Your task to perform on an android device: uninstall "ColorNote Notepad Notes" Image 0: 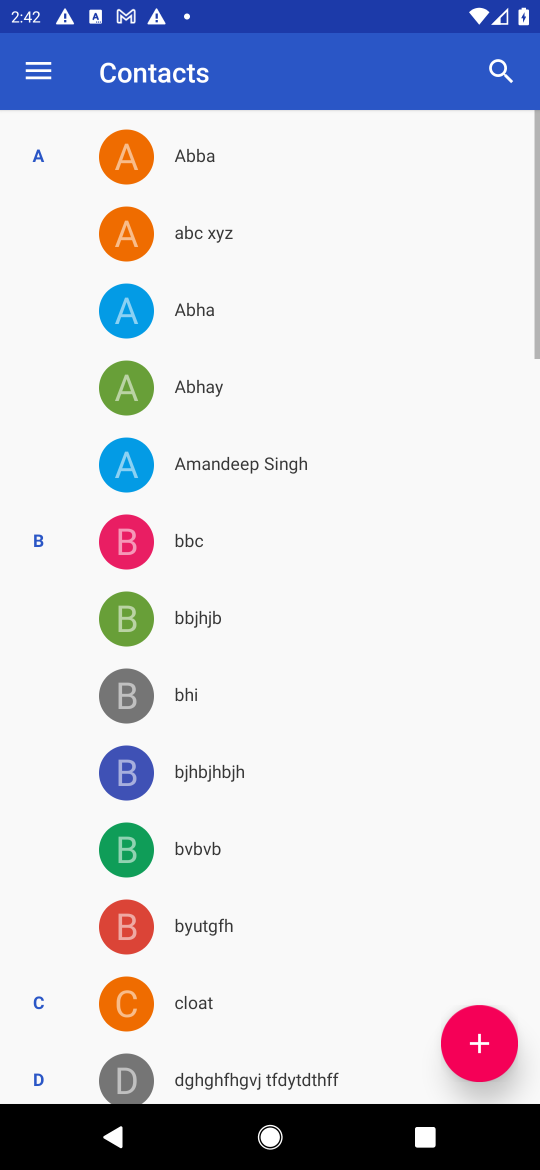
Step 0: press home button
Your task to perform on an android device: uninstall "ColorNote Notepad Notes" Image 1: 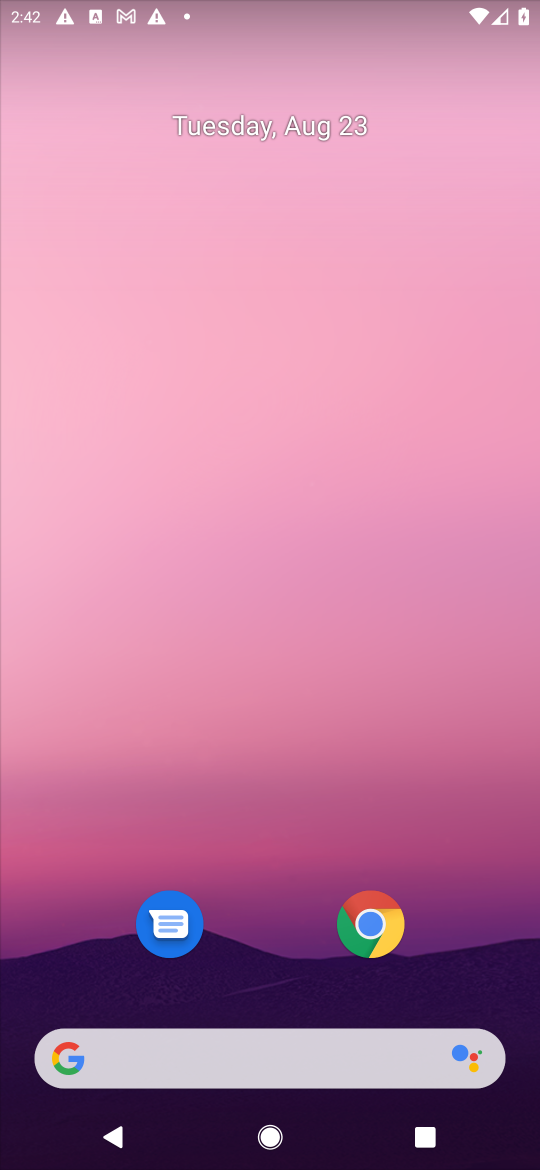
Step 1: drag from (490, 924) to (431, 201)
Your task to perform on an android device: uninstall "ColorNote Notepad Notes" Image 2: 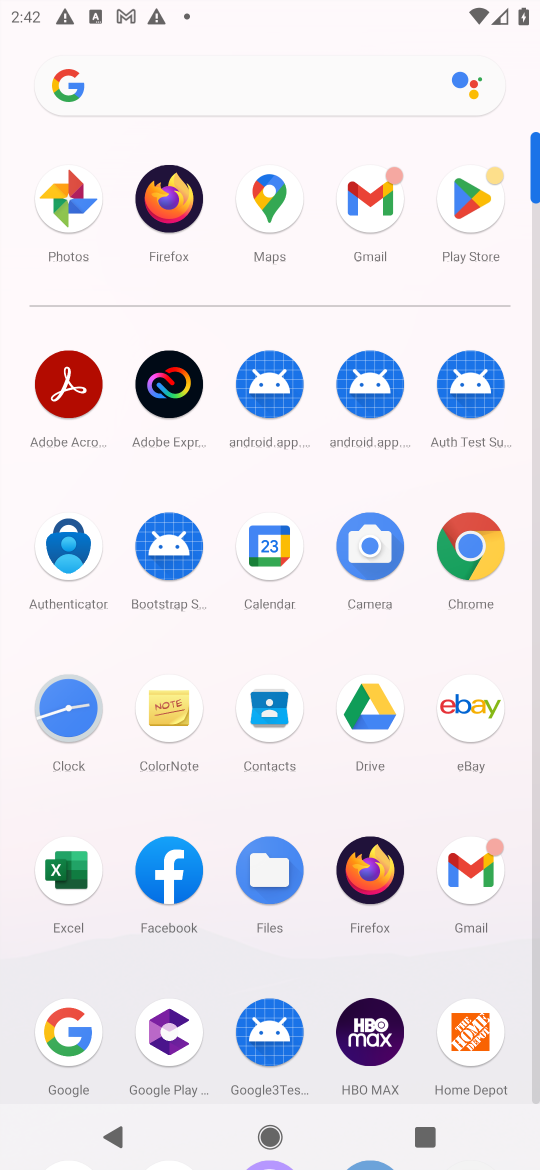
Step 2: click (464, 195)
Your task to perform on an android device: uninstall "ColorNote Notepad Notes" Image 3: 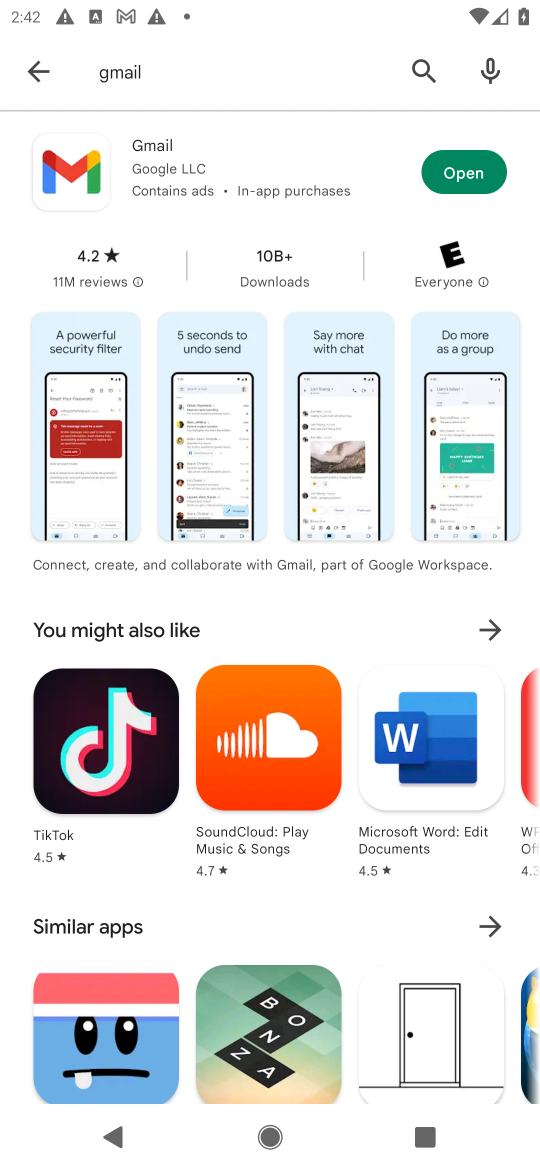
Step 3: press back button
Your task to perform on an android device: uninstall "ColorNote Notepad Notes" Image 4: 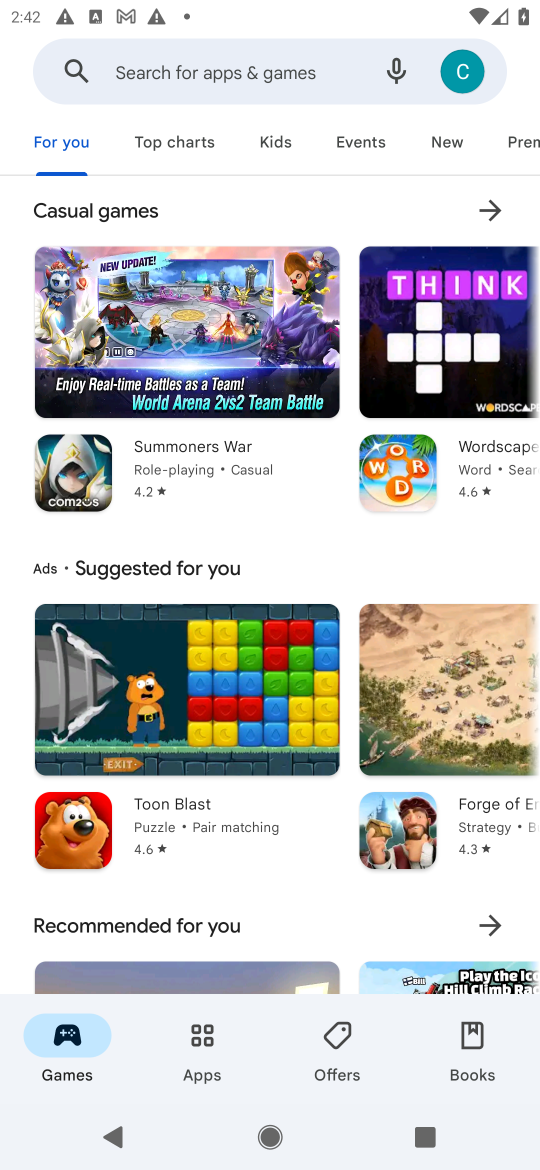
Step 4: click (266, 69)
Your task to perform on an android device: uninstall "ColorNote Notepad Notes" Image 5: 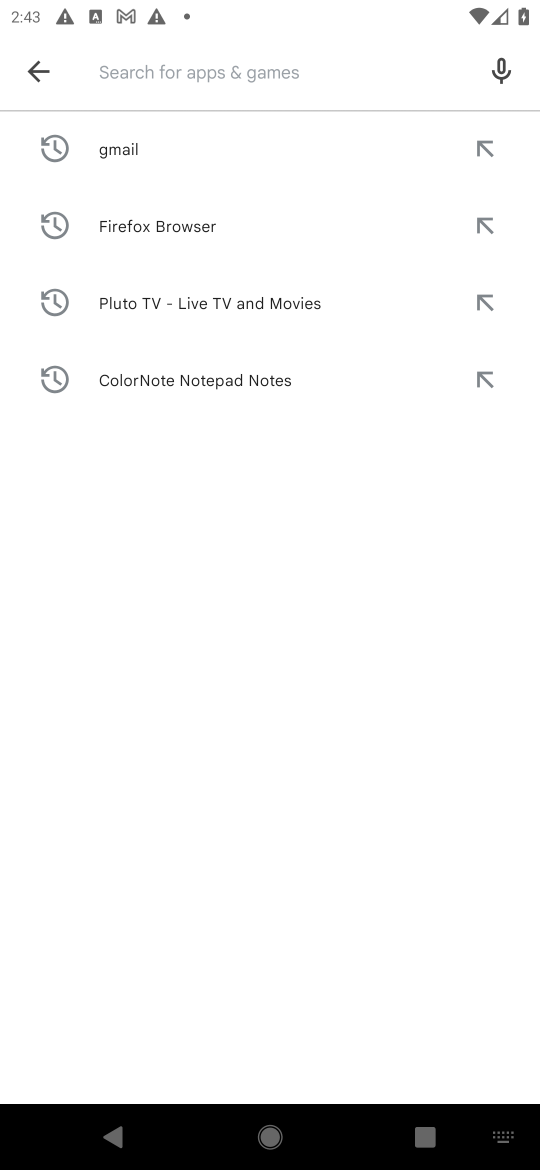
Step 5: type "ColorNote Notepad Notes"
Your task to perform on an android device: uninstall "ColorNote Notepad Notes" Image 6: 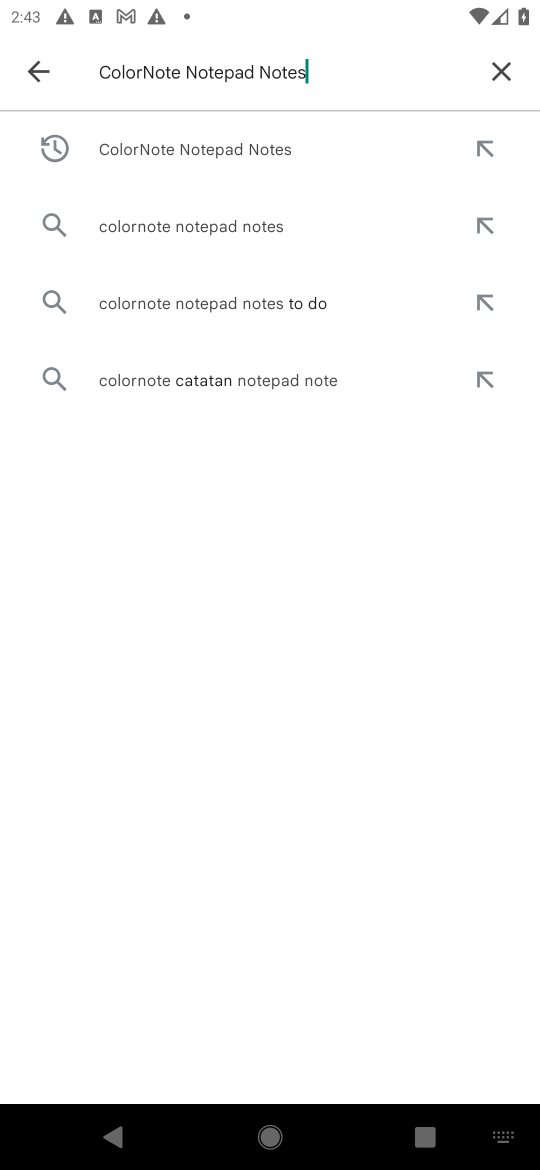
Step 6: press enter
Your task to perform on an android device: uninstall "ColorNote Notepad Notes" Image 7: 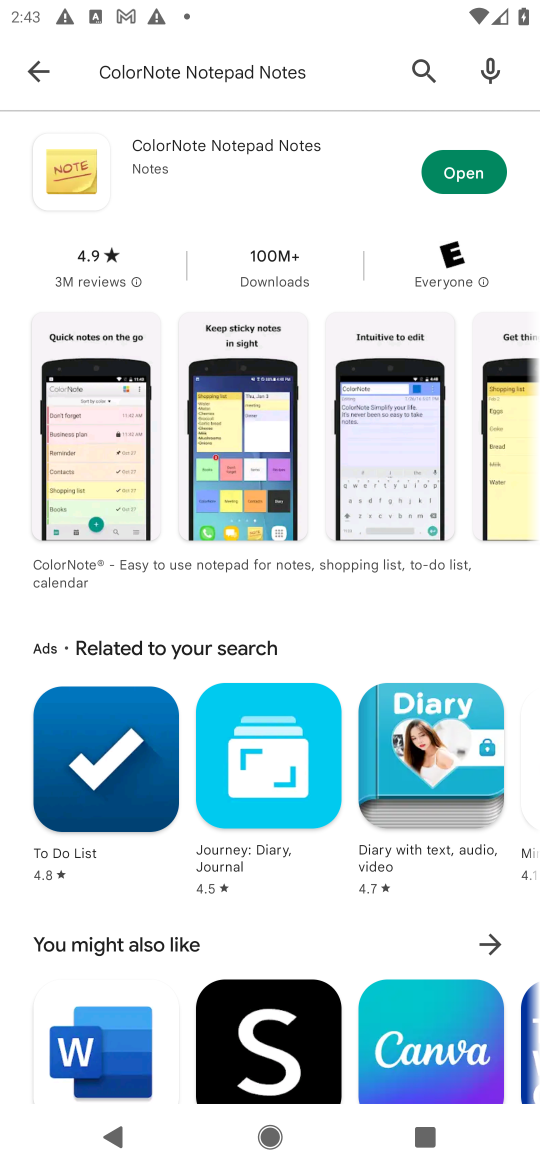
Step 7: task complete